Your task to perform on an android device: delete a single message in the gmail app Image 0: 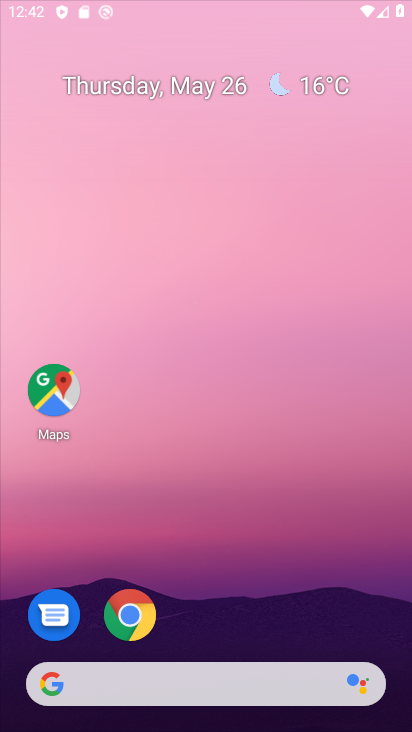
Step 0: click (273, 104)
Your task to perform on an android device: delete a single message in the gmail app Image 1: 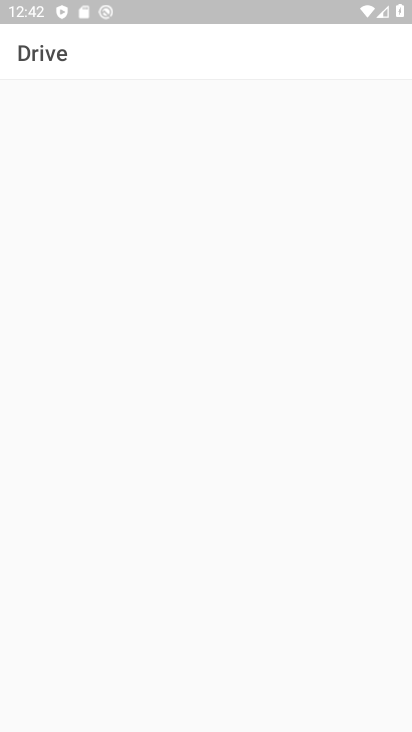
Step 1: press home button
Your task to perform on an android device: delete a single message in the gmail app Image 2: 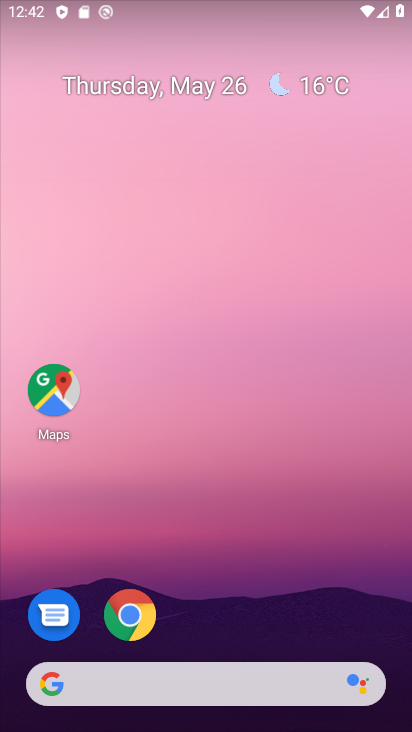
Step 2: drag from (220, 620) to (251, 217)
Your task to perform on an android device: delete a single message in the gmail app Image 3: 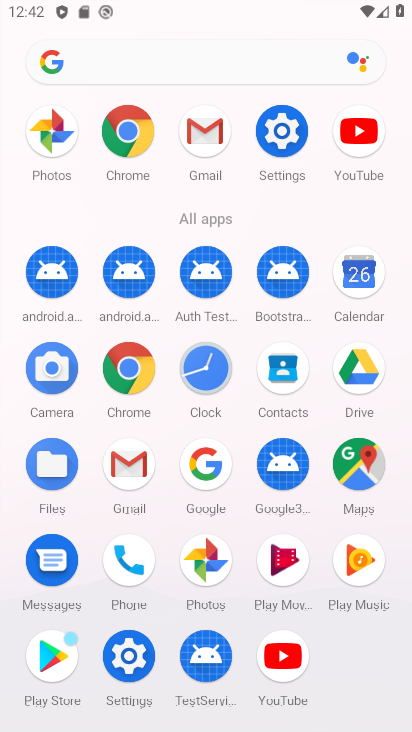
Step 3: click (121, 471)
Your task to perform on an android device: delete a single message in the gmail app Image 4: 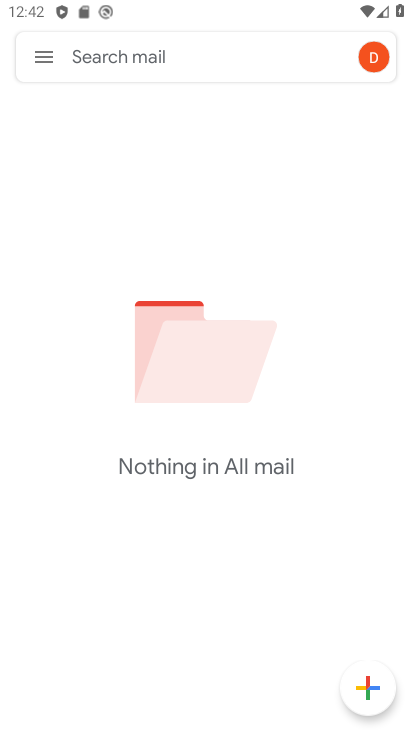
Step 4: click (44, 60)
Your task to perform on an android device: delete a single message in the gmail app Image 5: 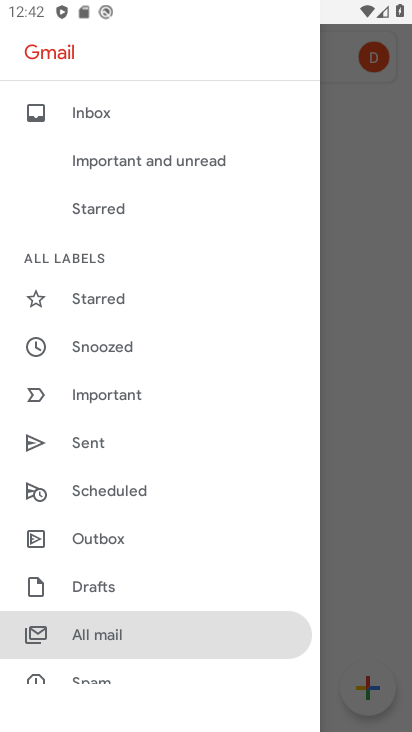
Step 5: task complete